Your task to perform on an android device: Open CNN.com Image 0: 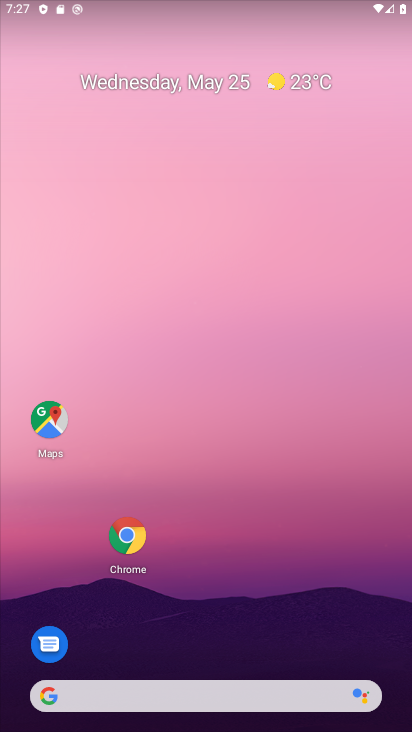
Step 0: click (132, 537)
Your task to perform on an android device: Open CNN.com Image 1: 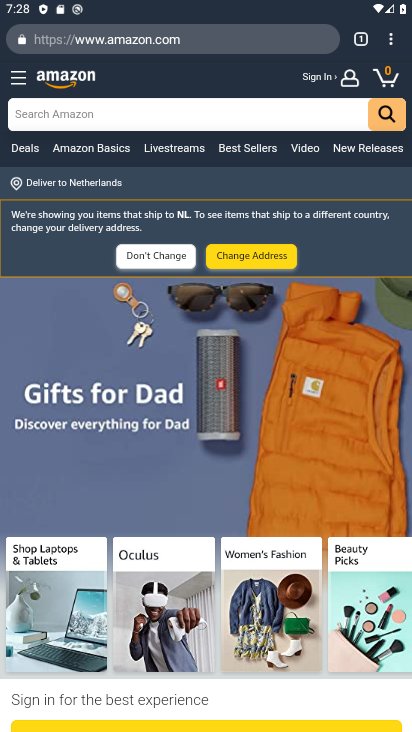
Step 1: click (172, 46)
Your task to perform on an android device: Open CNN.com Image 2: 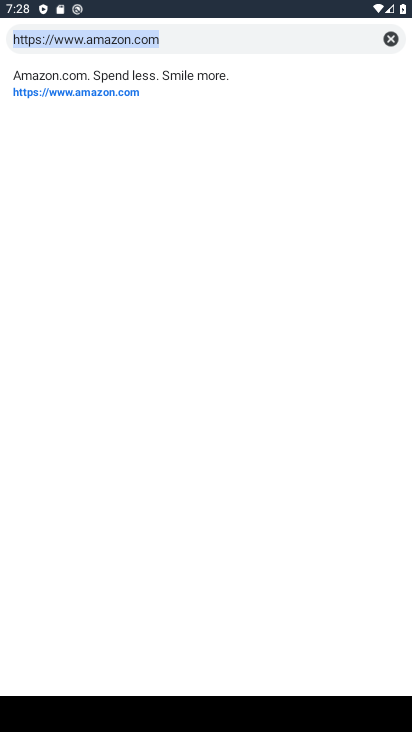
Step 2: type "cnn.com"
Your task to perform on an android device: Open CNN.com Image 3: 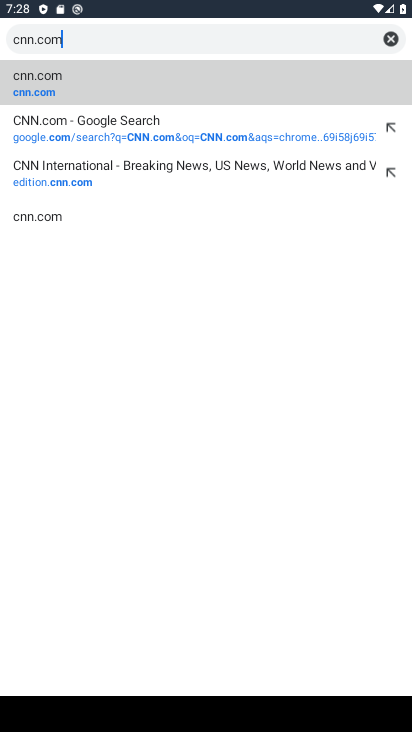
Step 3: click (144, 74)
Your task to perform on an android device: Open CNN.com Image 4: 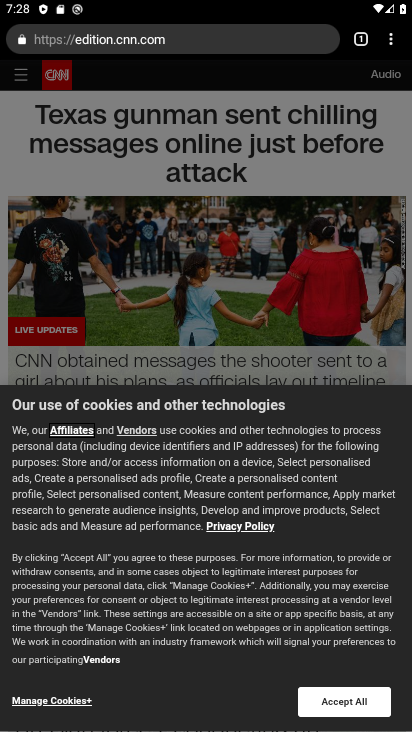
Step 4: press home button
Your task to perform on an android device: Open CNN.com Image 5: 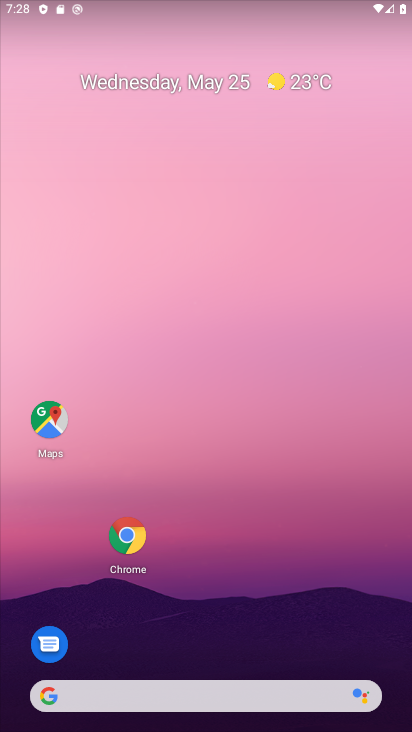
Step 5: click (126, 544)
Your task to perform on an android device: Open CNN.com Image 6: 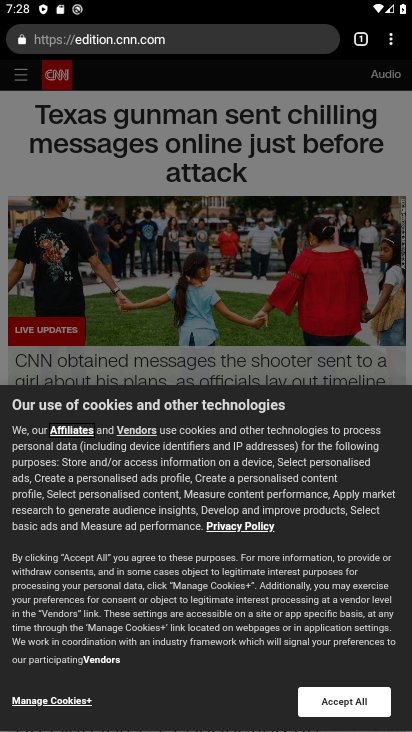
Step 6: task complete